Your task to perform on an android device: Open the web browser Image 0: 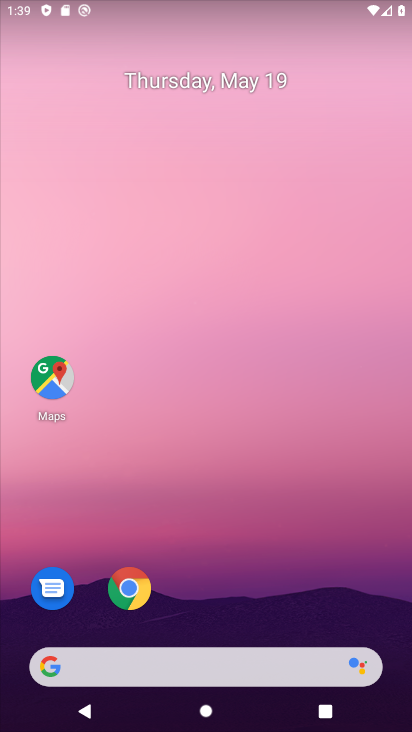
Step 0: drag from (249, 598) to (214, 135)
Your task to perform on an android device: Open the web browser Image 1: 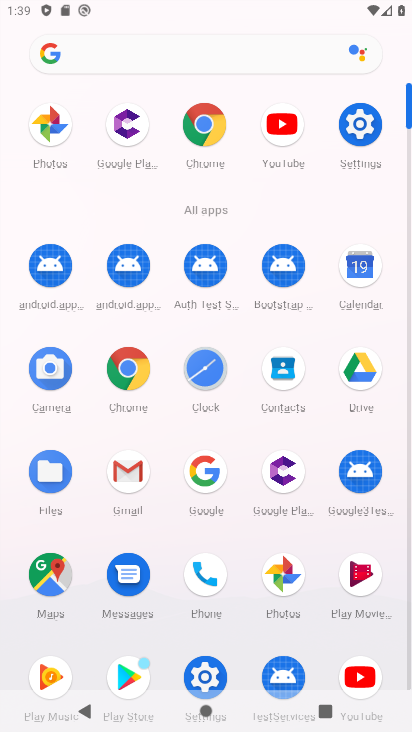
Step 1: click (204, 466)
Your task to perform on an android device: Open the web browser Image 2: 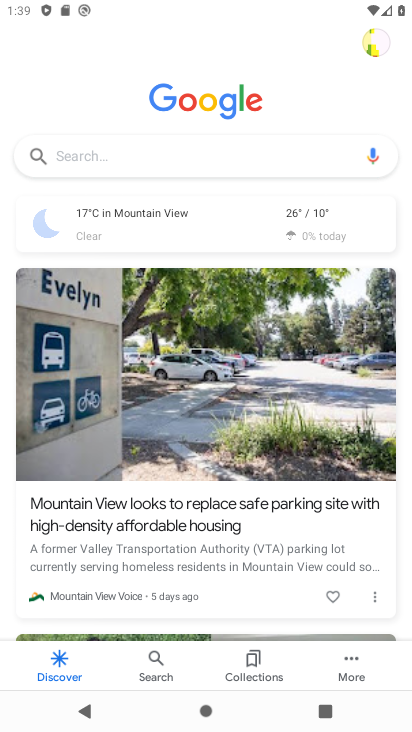
Step 2: task complete